Your task to perform on an android device: What's on my calendar today? Image 0: 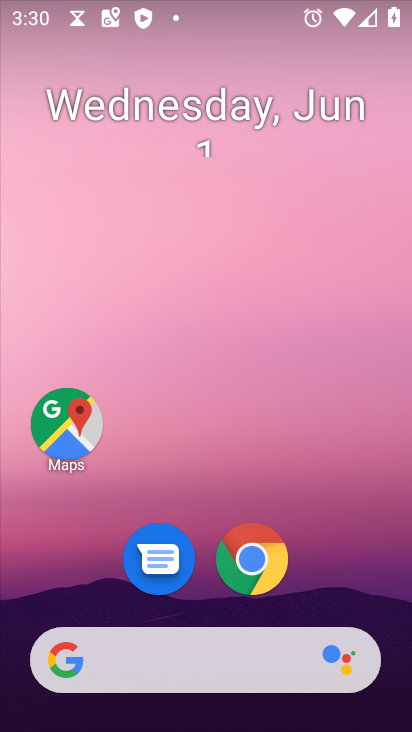
Step 0: drag from (324, 577) to (322, 56)
Your task to perform on an android device: What's on my calendar today? Image 1: 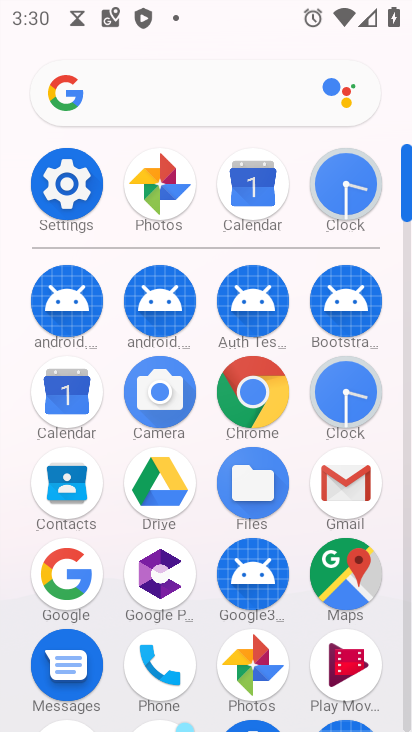
Step 1: click (256, 177)
Your task to perform on an android device: What's on my calendar today? Image 2: 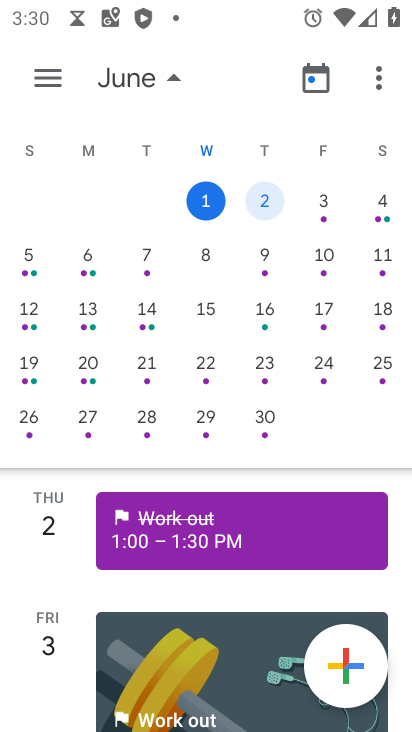
Step 2: click (207, 216)
Your task to perform on an android device: What's on my calendar today? Image 3: 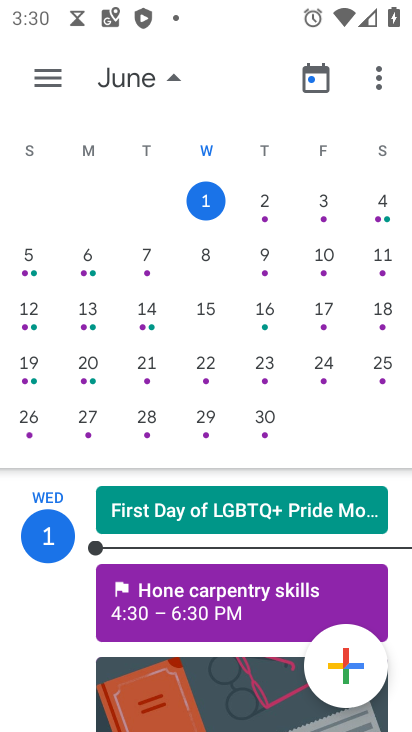
Step 3: task complete